Your task to perform on an android device: toggle wifi Image 0: 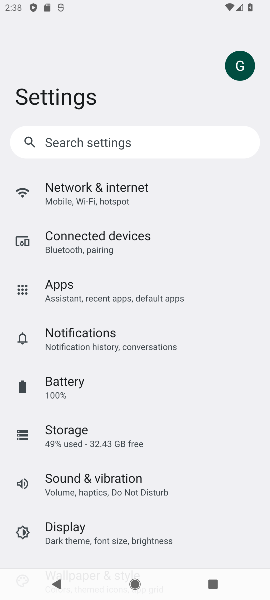
Step 0: click (77, 188)
Your task to perform on an android device: toggle wifi Image 1: 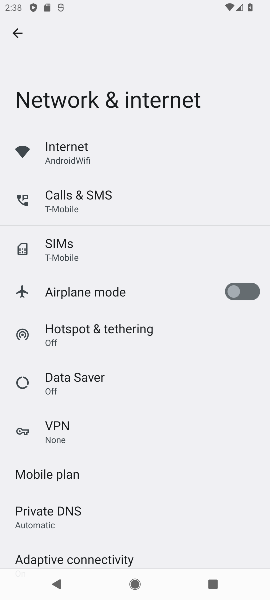
Step 1: click (77, 148)
Your task to perform on an android device: toggle wifi Image 2: 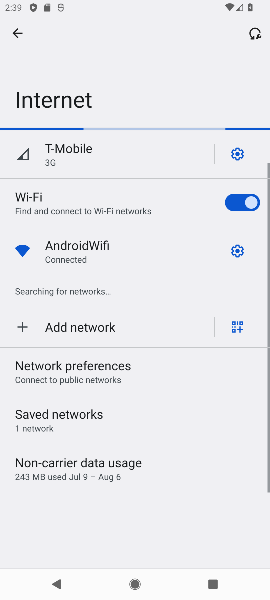
Step 2: task complete